Your task to perform on an android device: change the clock display to show seconds Image 0: 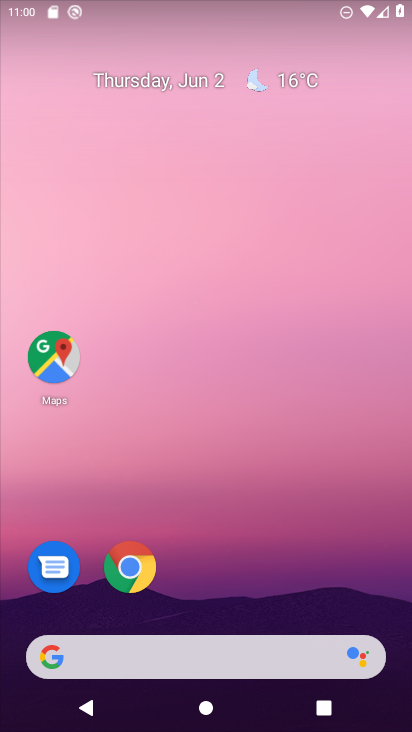
Step 0: drag from (153, 726) to (148, 84)
Your task to perform on an android device: change the clock display to show seconds Image 1: 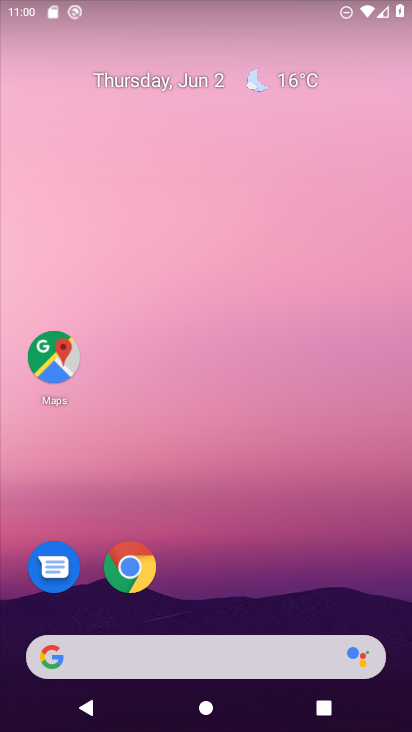
Step 1: press home button
Your task to perform on an android device: change the clock display to show seconds Image 2: 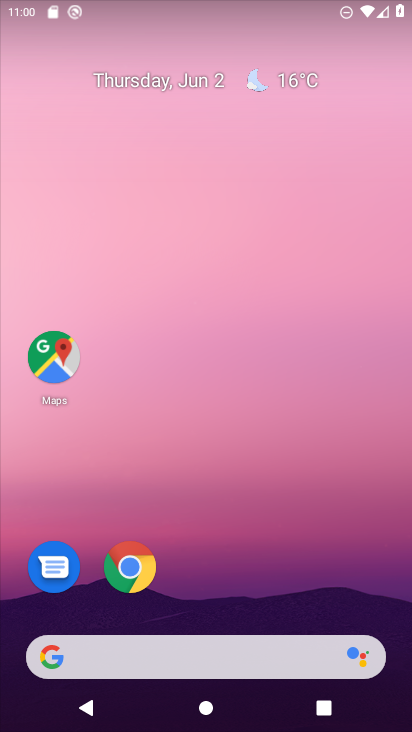
Step 2: drag from (145, 731) to (148, 16)
Your task to perform on an android device: change the clock display to show seconds Image 3: 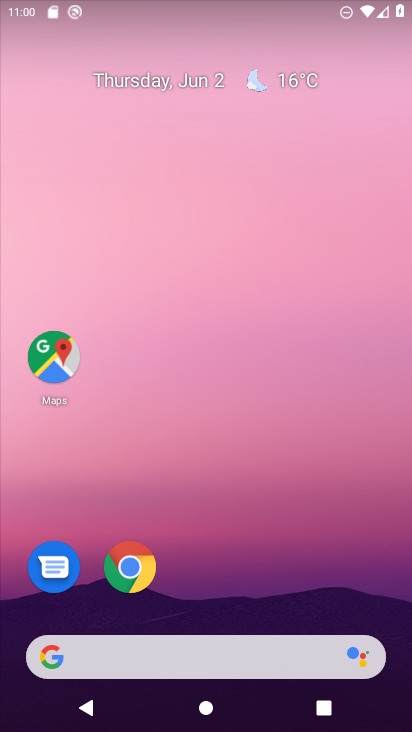
Step 3: drag from (134, 720) to (116, 10)
Your task to perform on an android device: change the clock display to show seconds Image 4: 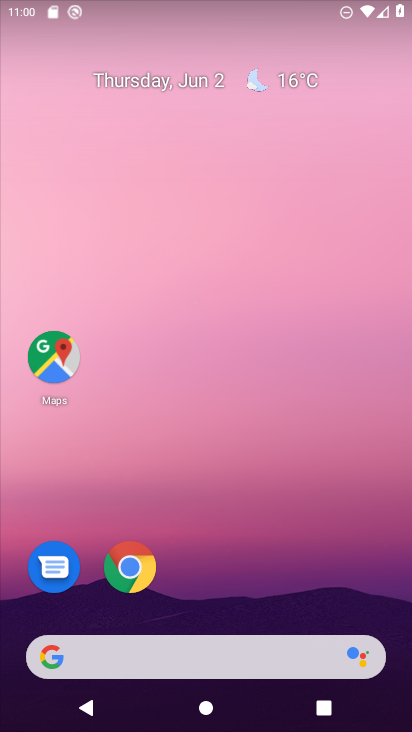
Step 4: click (178, 486)
Your task to perform on an android device: change the clock display to show seconds Image 5: 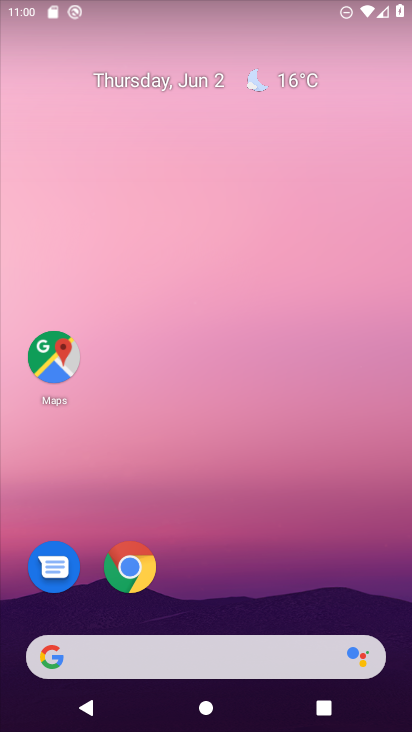
Step 5: click (138, 719)
Your task to perform on an android device: change the clock display to show seconds Image 6: 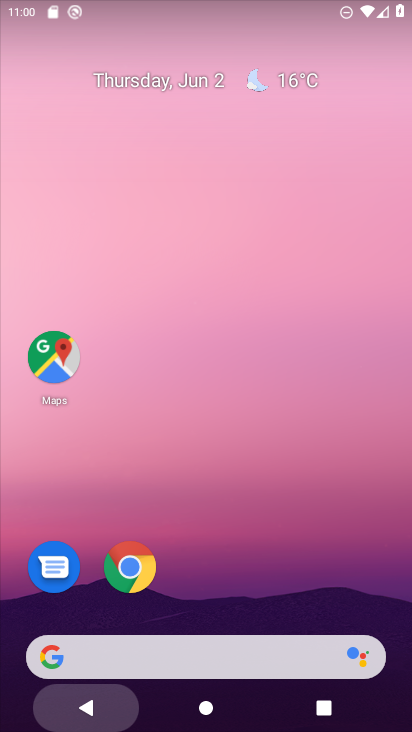
Step 6: drag from (140, 729) to (129, 15)
Your task to perform on an android device: change the clock display to show seconds Image 7: 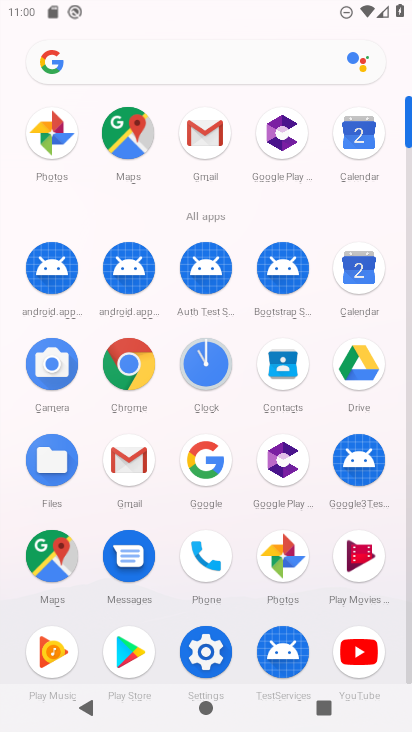
Step 7: click (213, 376)
Your task to perform on an android device: change the clock display to show seconds Image 8: 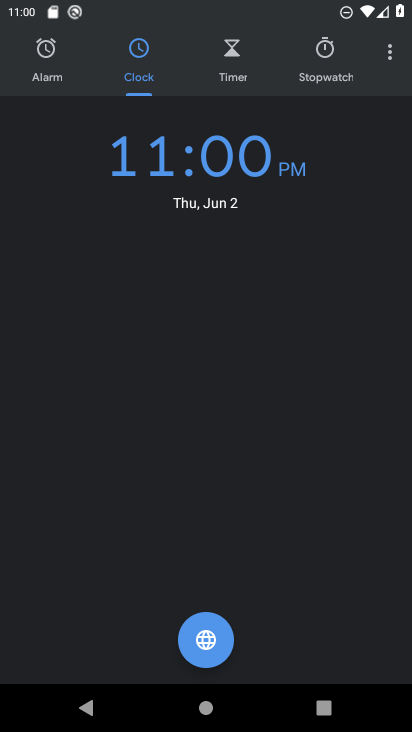
Step 8: click (386, 48)
Your task to perform on an android device: change the clock display to show seconds Image 9: 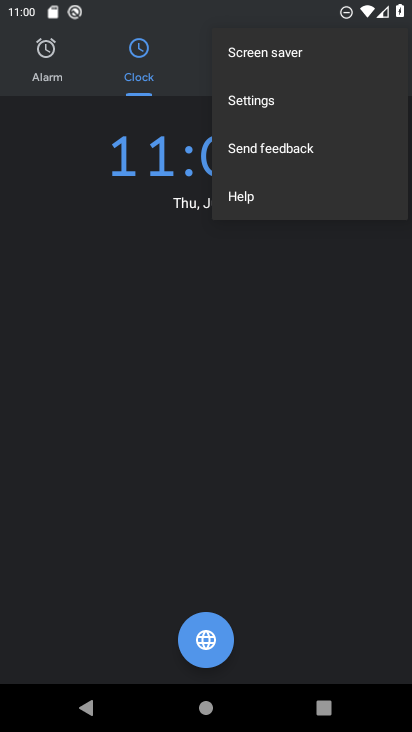
Step 9: click (275, 104)
Your task to perform on an android device: change the clock display to show seconds Image 10: 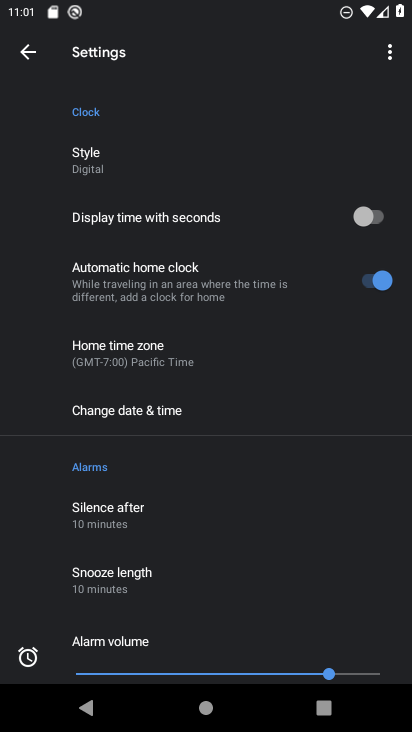
Step 10: click (381, 228)
Your task to perform on an android device: change the clock display to show seconds Image 11: 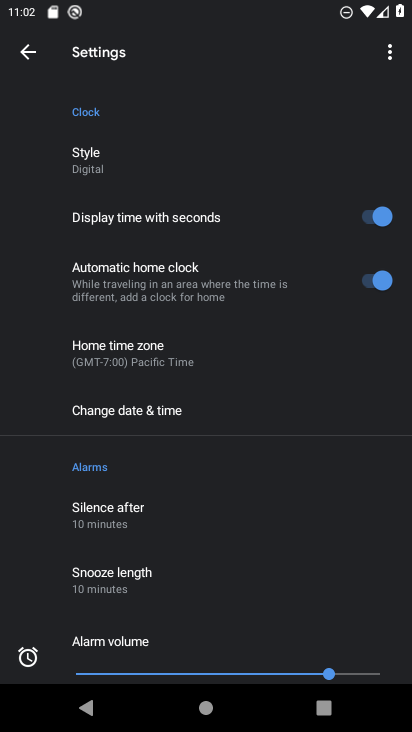
Step 11: task complete